Your task to perform on an android device: open sync settings in chrome Image 0: 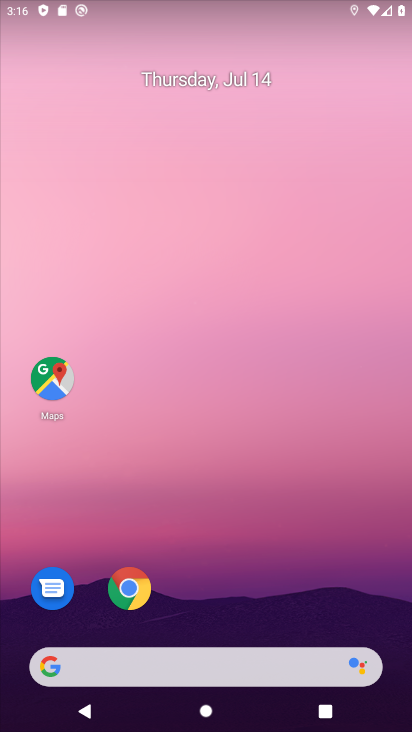
Step 0: click (126, 589)
Your task to perform on an android device: open sync settings in chrome Image 1: 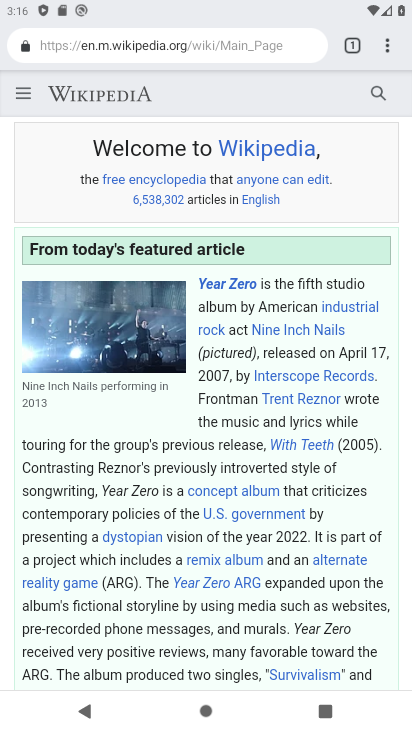
Step 1: click (387, 47)
Your task to perform on an android device: open sync settings in chrome Image 2: 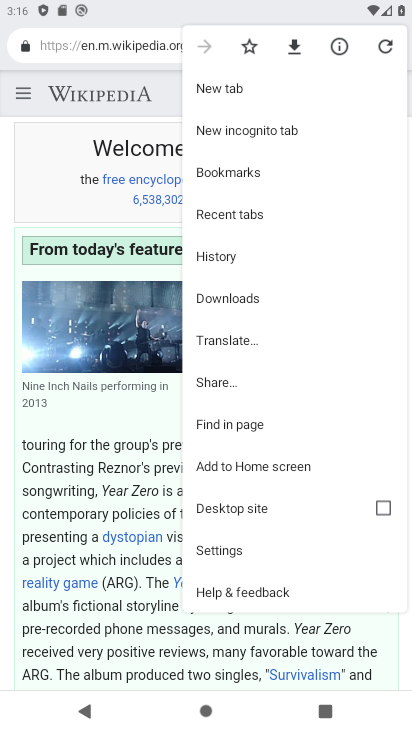
Step 2: click (220, 548)
Your task to perform on an android device: open sync settings in chrome Image 3: 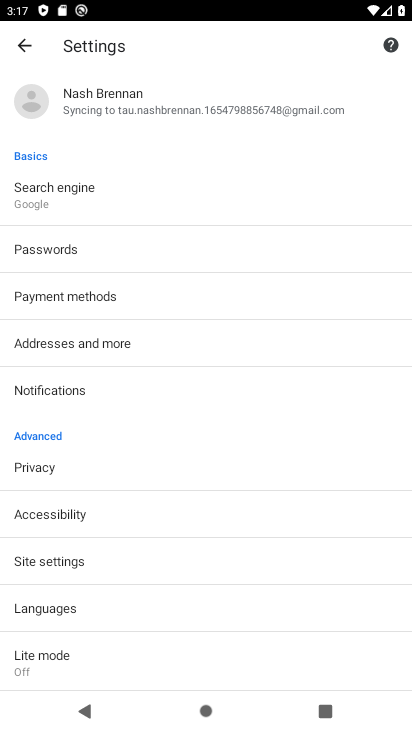
Step 3: click (70, 563)
Your task to perform on an android device: open sync settings in chrome Image 4: 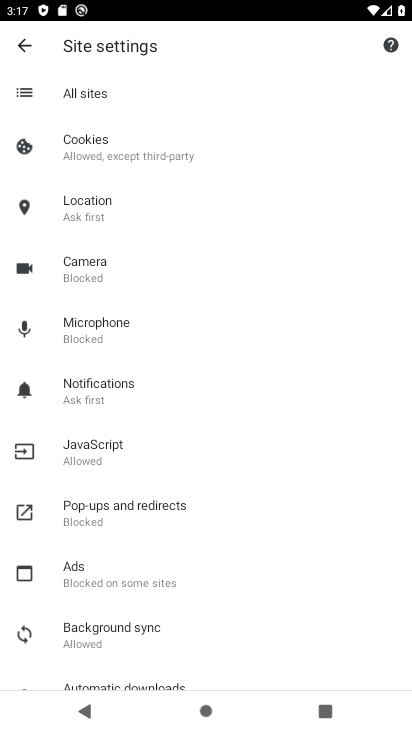
Step 4: click (104, 626)
Your task to perform on an android device: open sync settings in chrome Image 5: 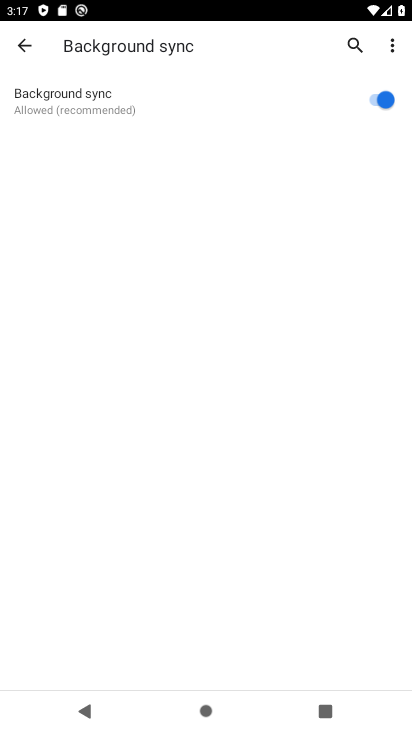
Step 5: task complete